Your task to perform on an android device: find snoozed emails in the gmail app Image 0: 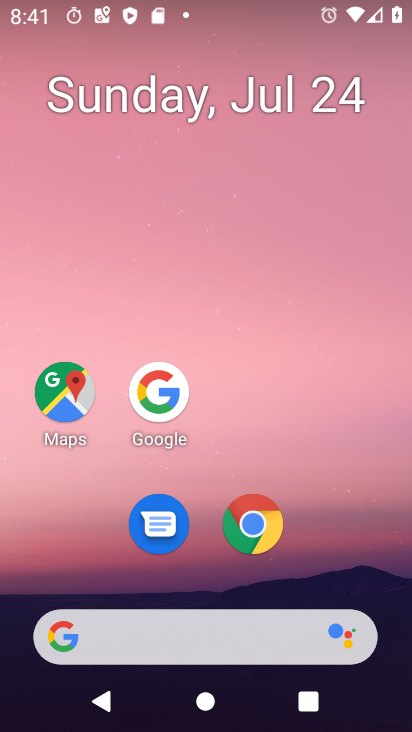
Step 0: press home button
Your task to perform on an android device: find snoozed emails in the gmail app Image 1: 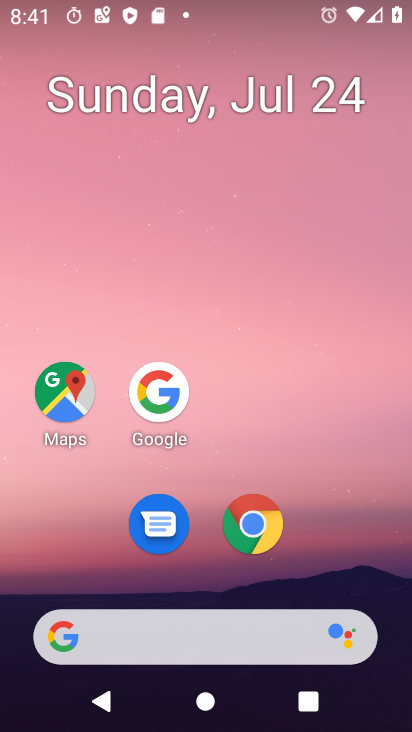
Step 1: drag from (240, 570) to (347, 115)
Your task to perform on an android device: find snoozed emails in the gmail app Image 2: 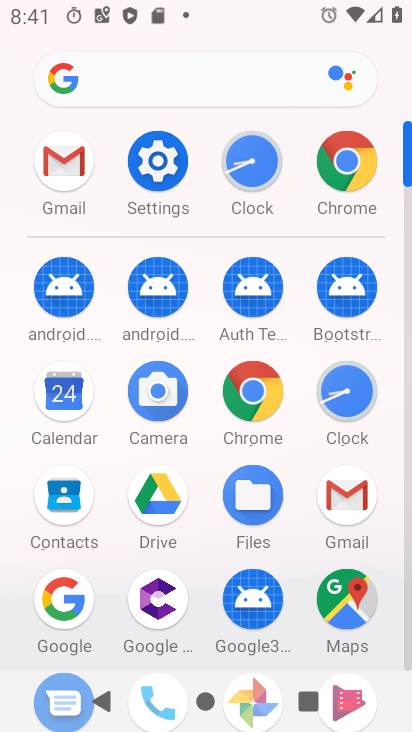
Step 2: click (349, 494)
Your task to perform on an android device: find snoozed emails in the gmail app Image 3: 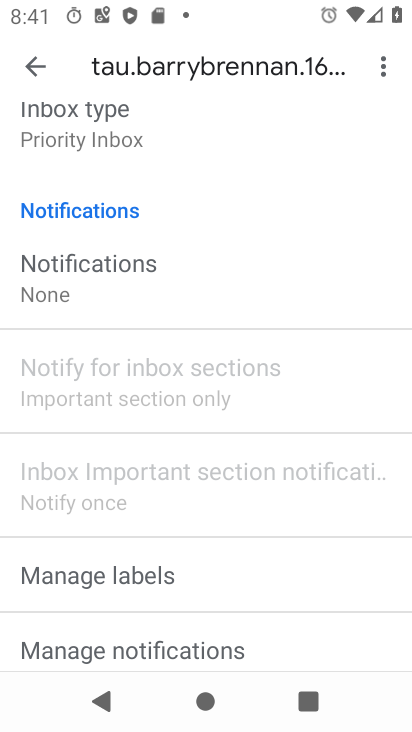
Step 3: drag from (218, 571) to (346, 126)
Your task to perform on an android device: find snoozed emails in the gmail app Image 4: 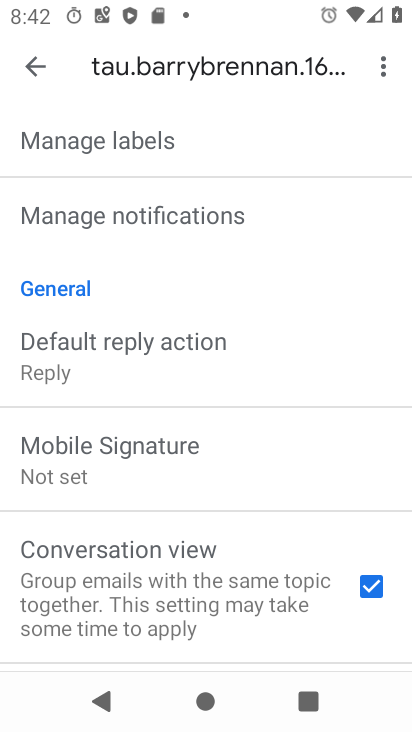
Step 4: click (34, 68)
Your task to perform on an android device: find snoozed emails in the gmail app Image 5: 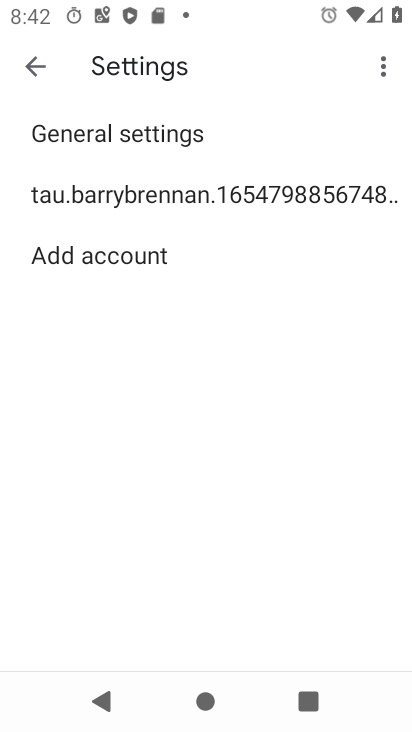
Step 5: click (34, 68)
Your task to perform on an android device: find snoozed emails in the gmail app Image 6: 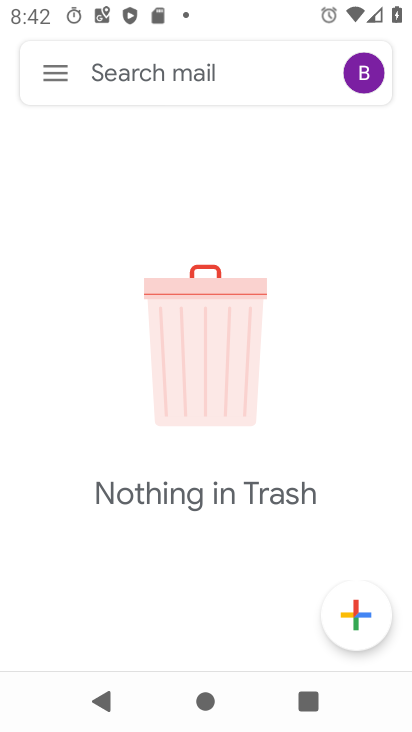
Step 6: click (58, 71)
Your task to perform on an android device: find snoozed emails in the gmail app Image 7: 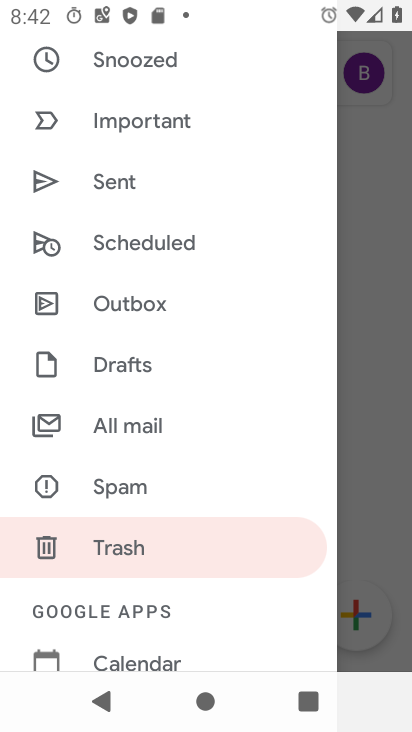
Step 7: click (161, 61)
Your task to perform on an android device: find snoozed emails in the gmail app Image 8: 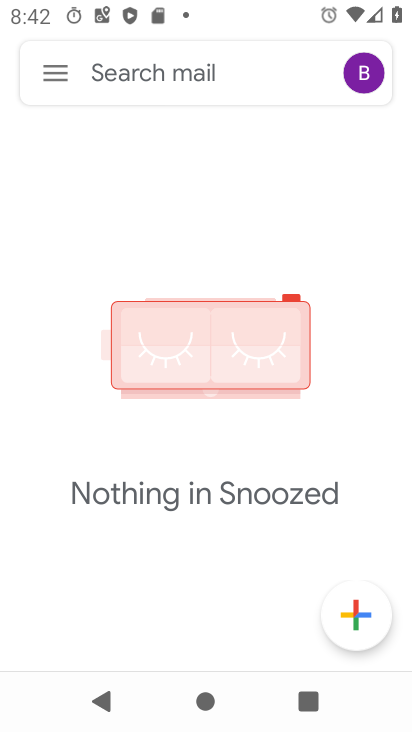
Step 8: task complete